Your task to perform on an android device: see sites visited before in the chrome app Image 0: 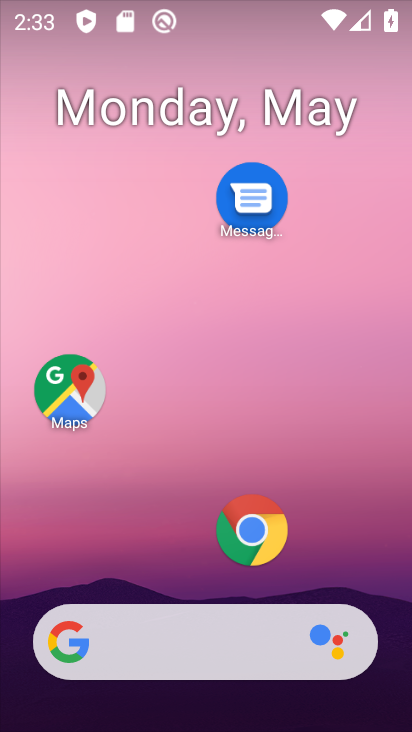
Step 0: click (256, 532)
Your task to perform on an android device: see sites visited before in the chrome app Image 1: 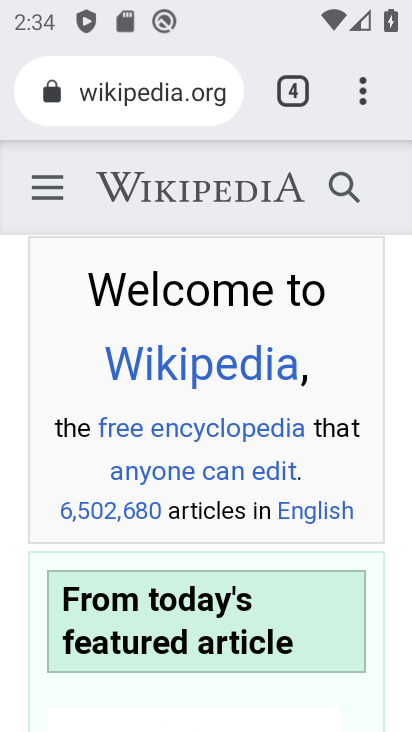
Step 1: click (355, 73)
Your task to perform on an android device: see sites visited before in the chrome app Image 2: 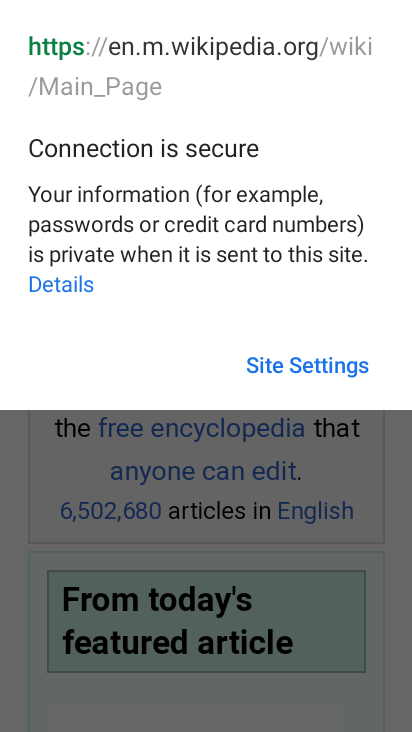
Step 2: click (224, 460)
Your task to perform on an android device: see sites visited before in the chrome app Image 3: 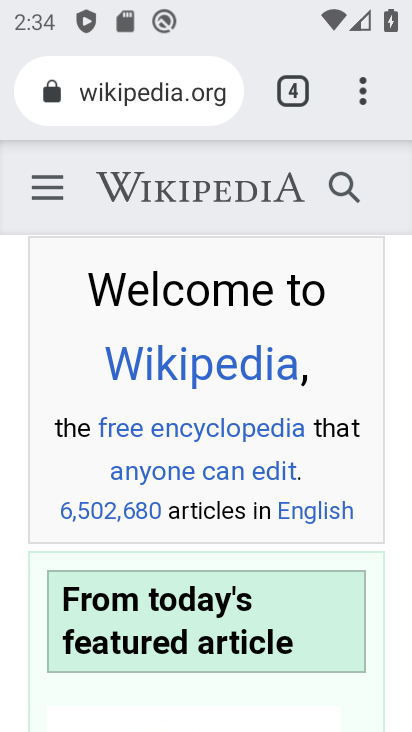
Step 3: task complete